Your task to perform on an android device: change the clock display to show seconds Image 0: 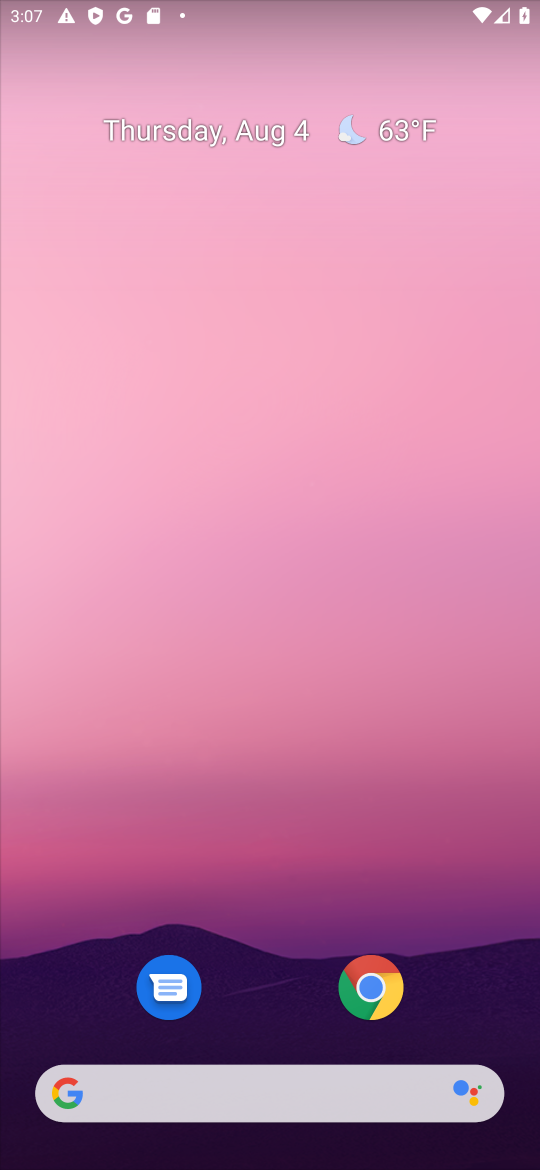
Step 0: drag from (256, 830) to (256, 227)
Your task to perform on an android device: change the clock display to show seconds Image 1: 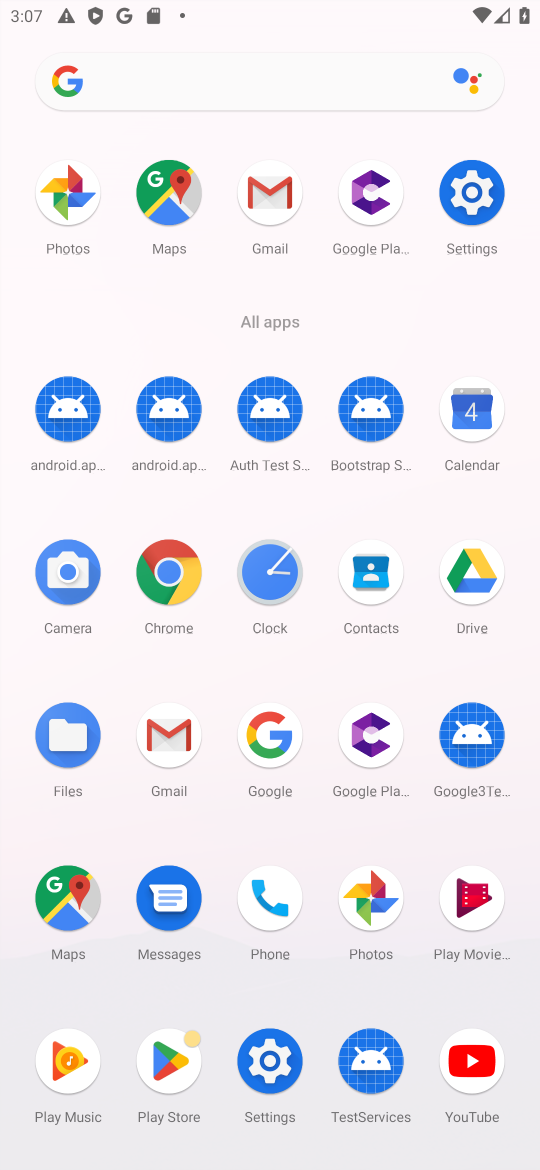
Step 1: click (263, 610)
Your task to perform on an android device: change the clock display to show seconds Image 2: 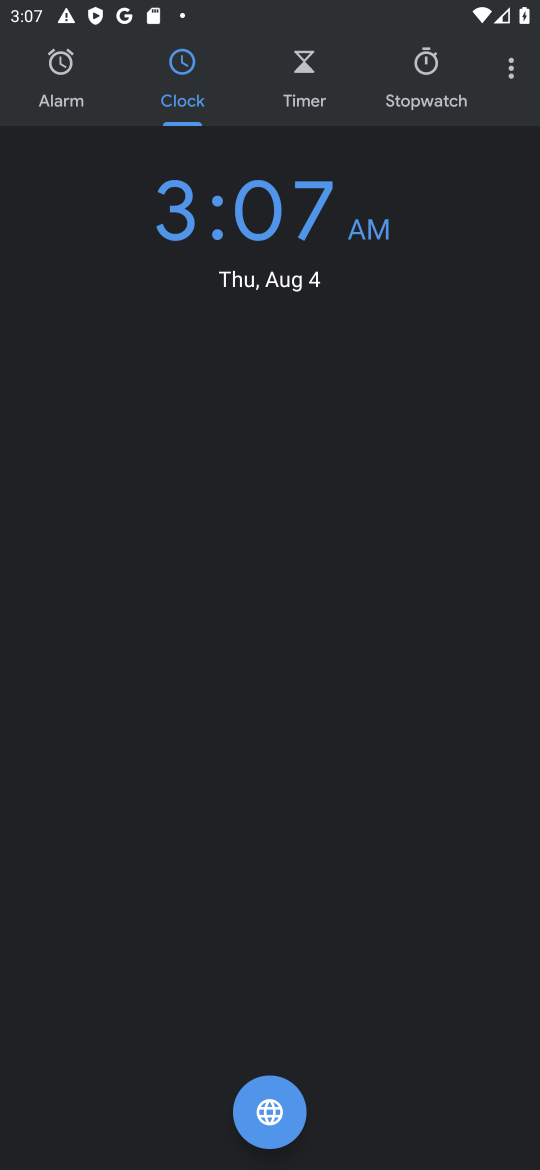
Step 2: click (514, 72)
Your task to perform on an android device: change the clock display to show seconds Image 3: 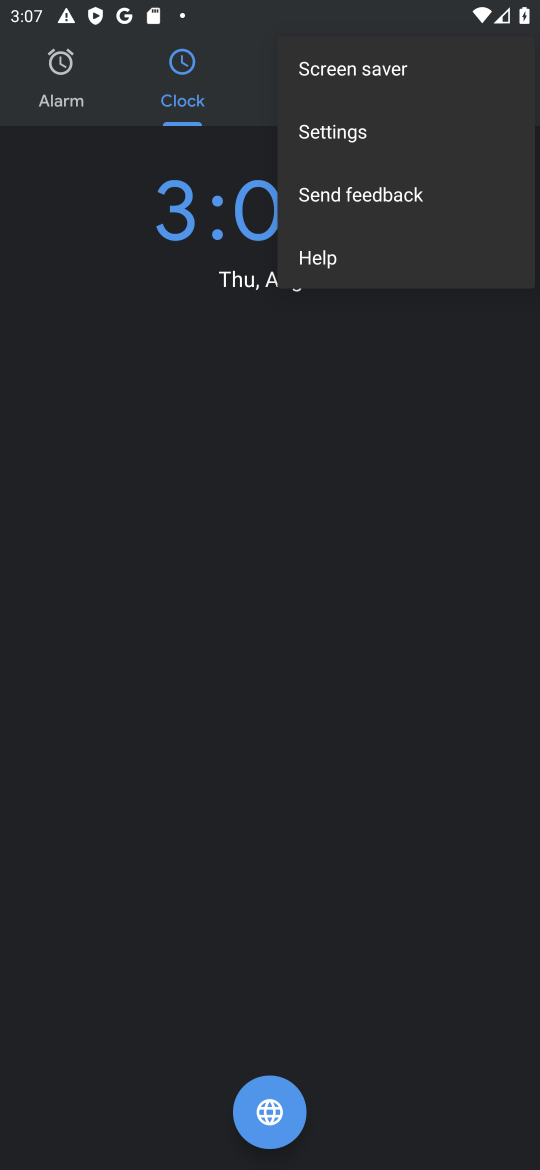
Step 3: click (342, 150)
Your task to perform on an android device: change the clock display to show seconds Image 4: 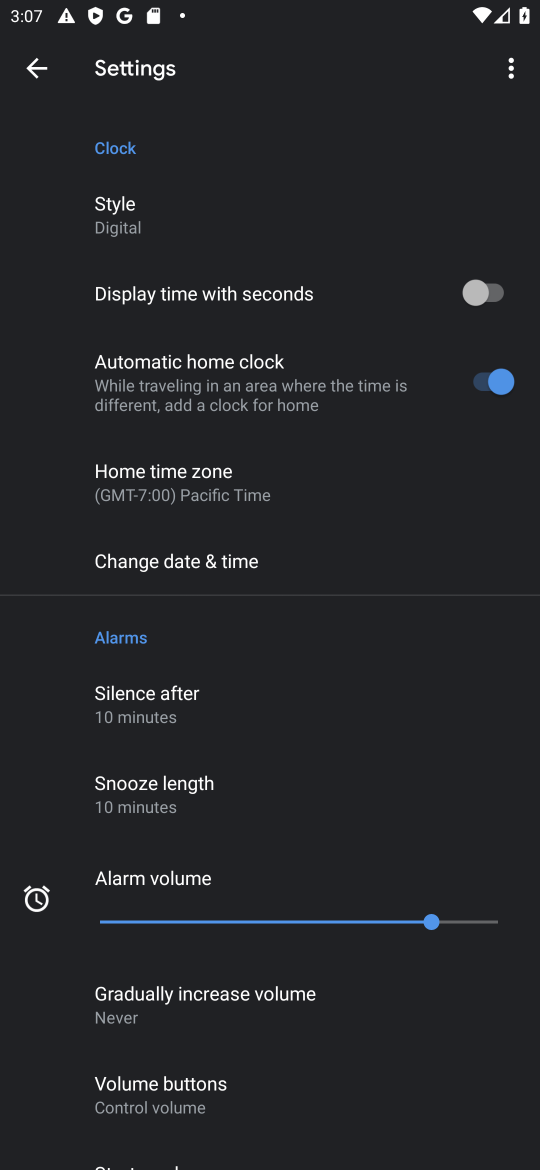
Step 4: click (506, 301)
Your task to perform on an android device: change the clock display to show seconds Image 5: 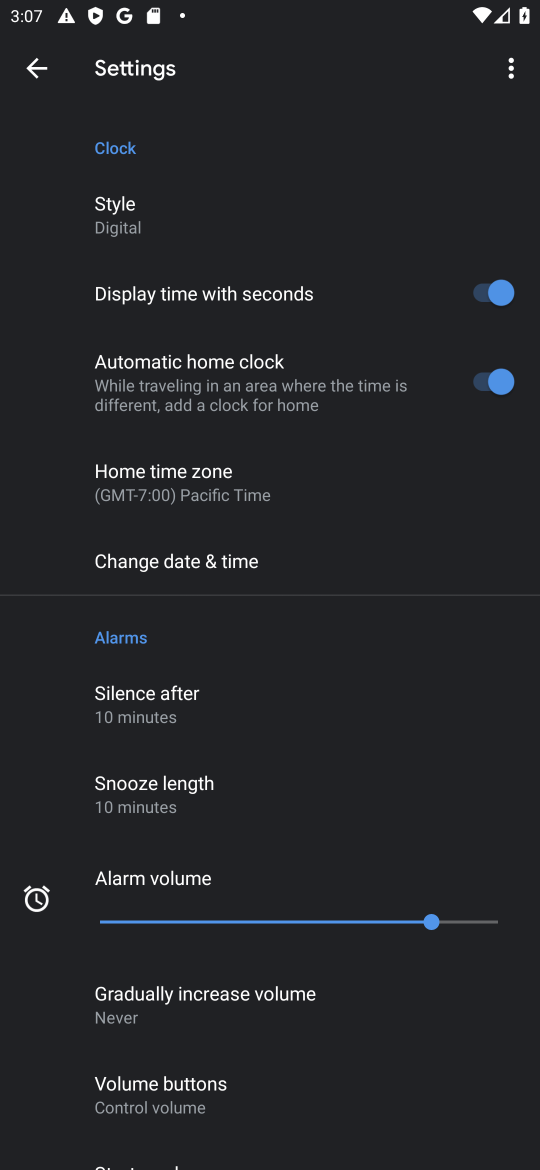
Step 5: task complete